Your task to perform on an android device: Go to Reddit.com Image 0: 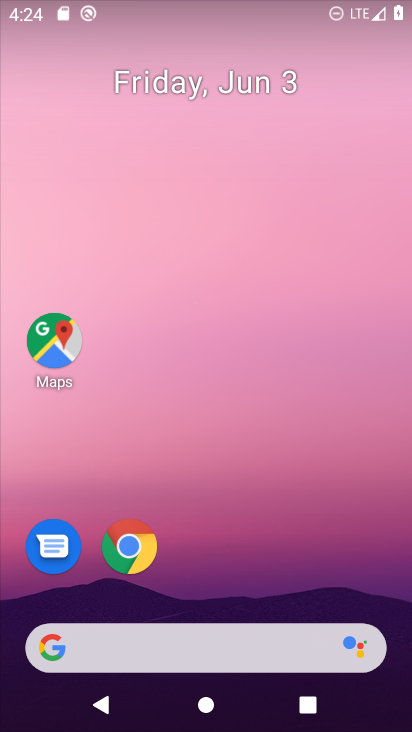
Step 0: click (214, 638)
Your task to perform on an android device: Go to Reddit.com Image 1: 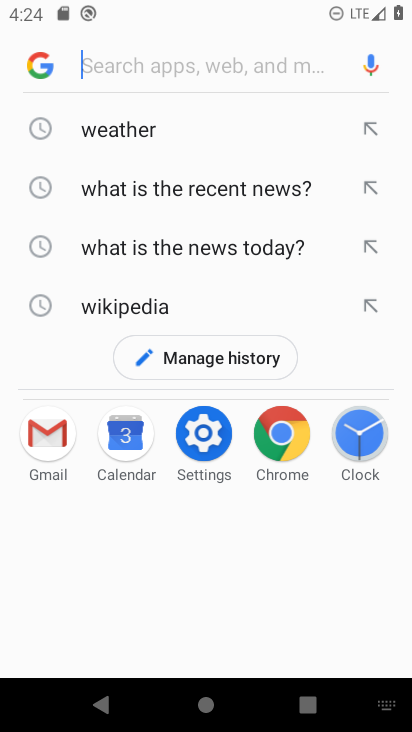
Step 1: type "reddit.com"
Your task to perform on an android device: Go to Reddit.com Image 2: 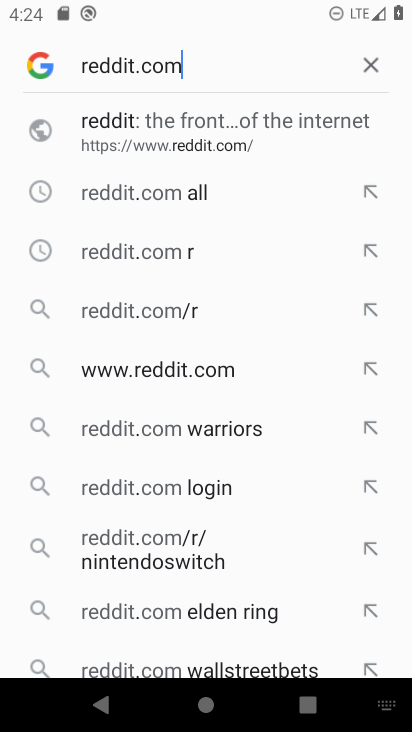
Step 2: click (133, 133)
Your task to perform on an android device: Go to Reddit.com Image 3: 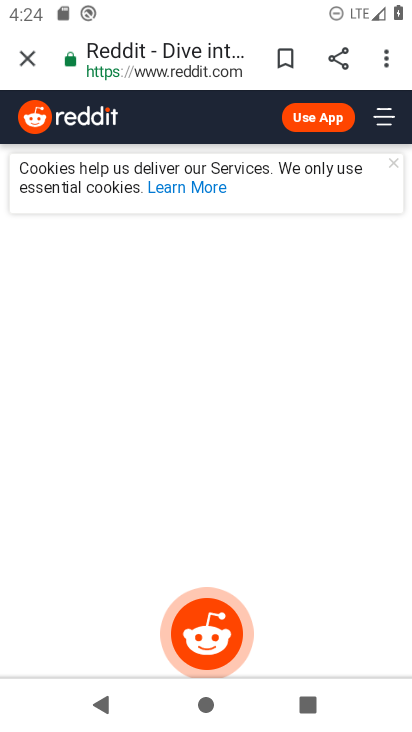
Step 3: task complete